Your task to perform on an android device: Go to Google maps Image 0: 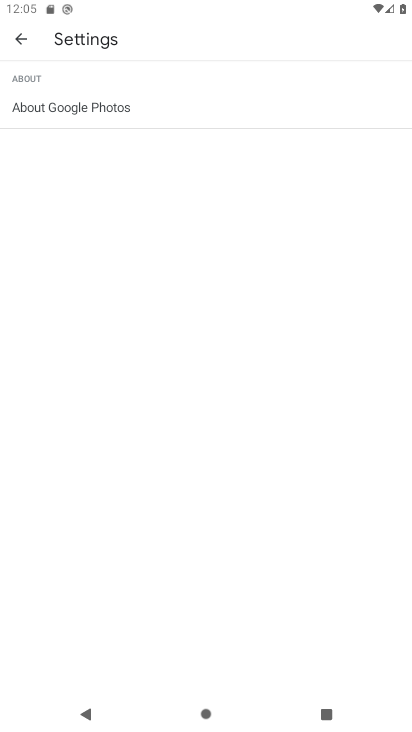
Step 0: press home button
Your task to perform on an android device: Go to Google maps Image 1: 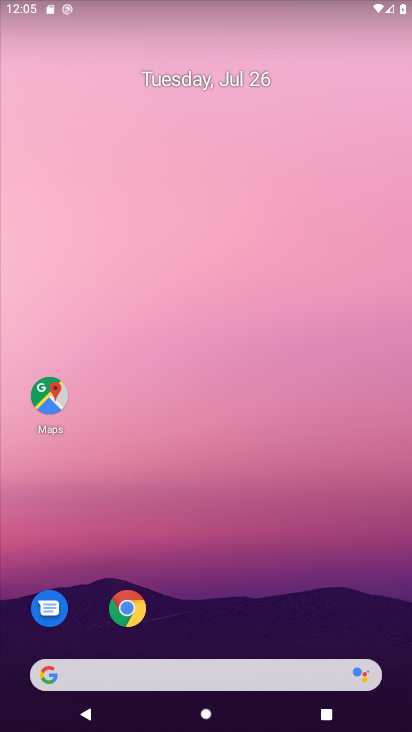
Step 1: click (66, 403)
Your task to perform on an android device: Go to Google maps Image 2: 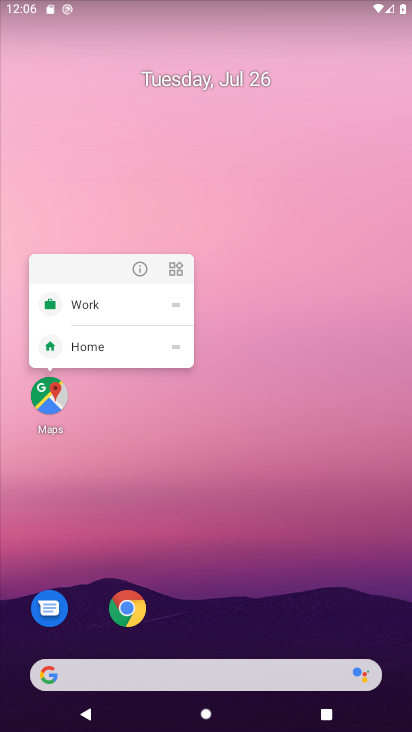
Step 2: click (58, 415)
Your task to perform on an android device: Go to Google maps Image 3: 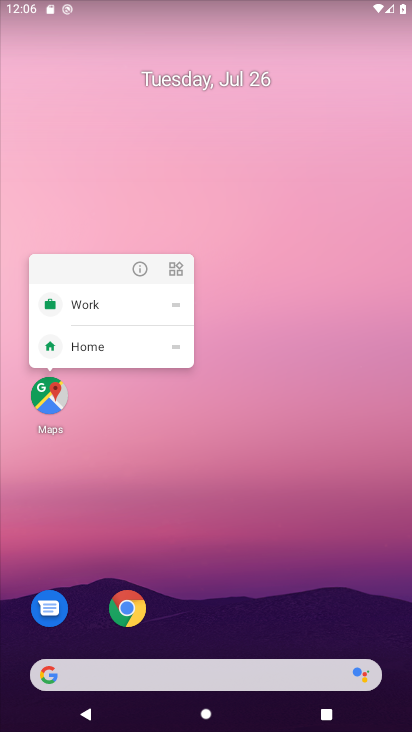
Step 3: click (62, 415)
Your task to perform on an android device: Go to Google maps Image 4: 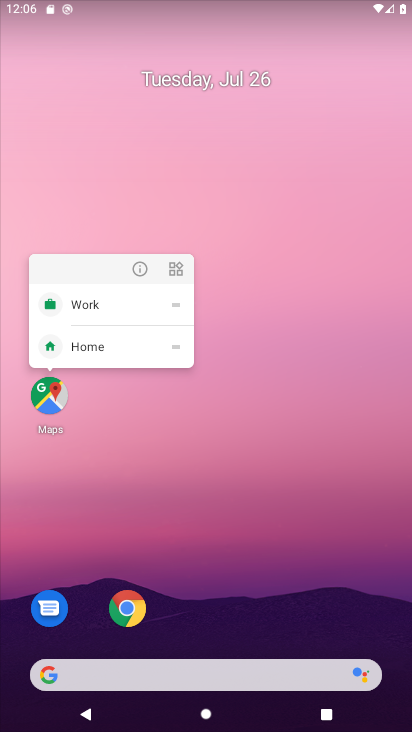
Step 4: click (69, 415)
Your task to perform on an android device: Go to Google maps Image 5: 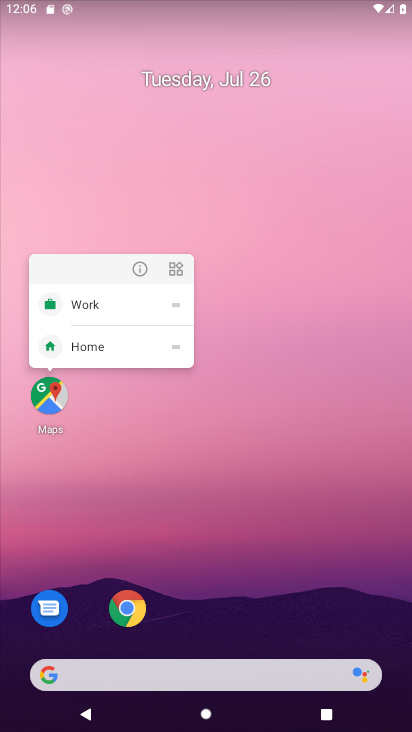
Step 5: click (51, 409)
Your task to perform on an android device: Go to Google maps Image 6: 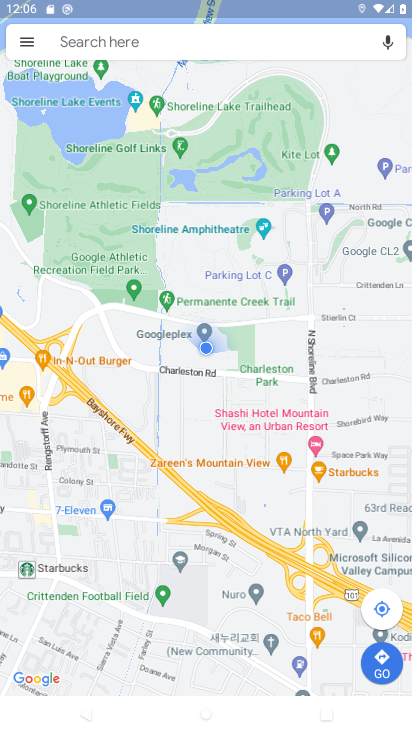
Step 6: task complete